Your task to perform on an android device: Open calendar and show me the second week of next month Image 0: 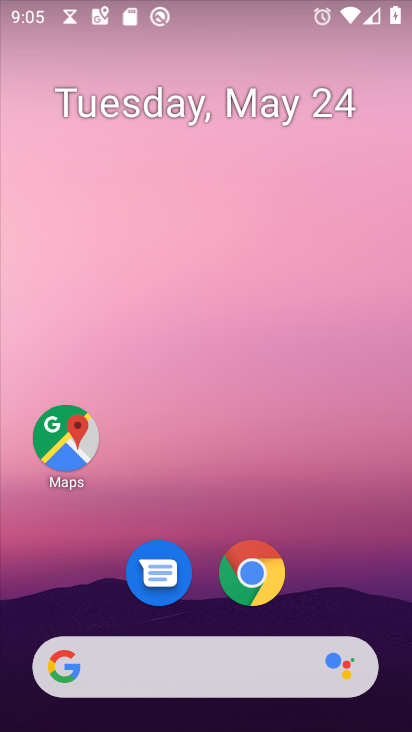
Step 0: drag from (342, 572) to (256, 4)
Your task to perform on an android device: Open calendar and show me the second week of next month Image 1: 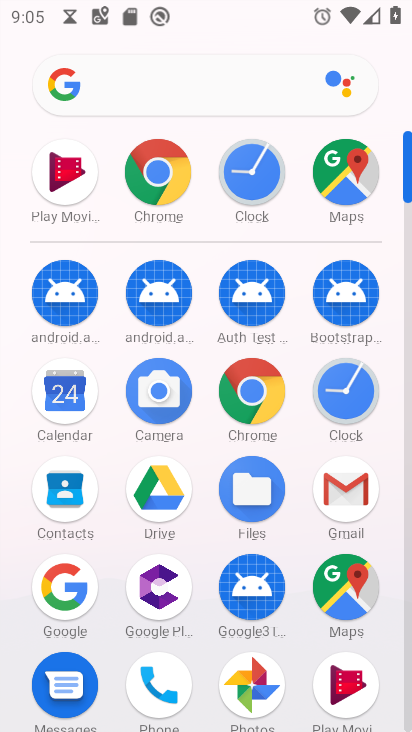
Step 1: click (46, 405)
Your task to perform on an android device: Open calendar and show me the second week of next month Image 2: 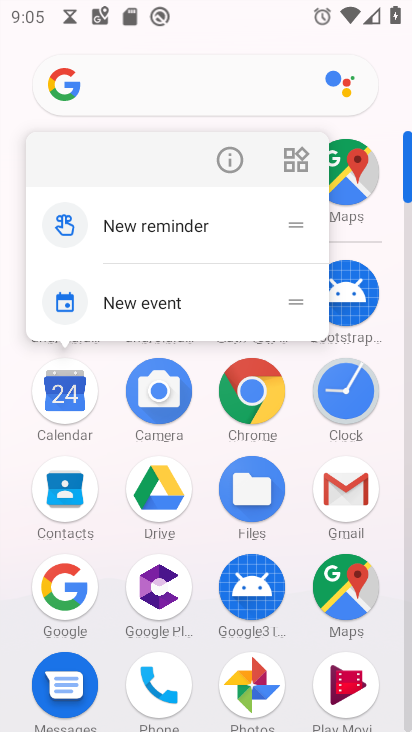
Step 2: click (46, 405)
Your task to perform on an android device: Open calendar and show me the second week of next month Image 3: 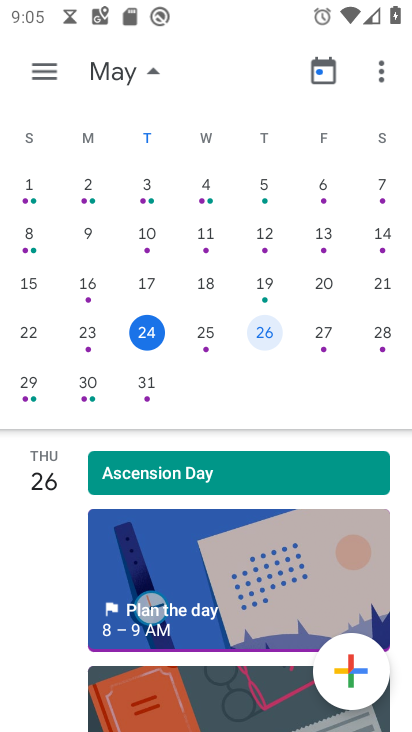
Step 3: drag from (205, 237) to (12, 231)
Your task to perform on an android device: Open calendar and show me the second week of next month Image 4: 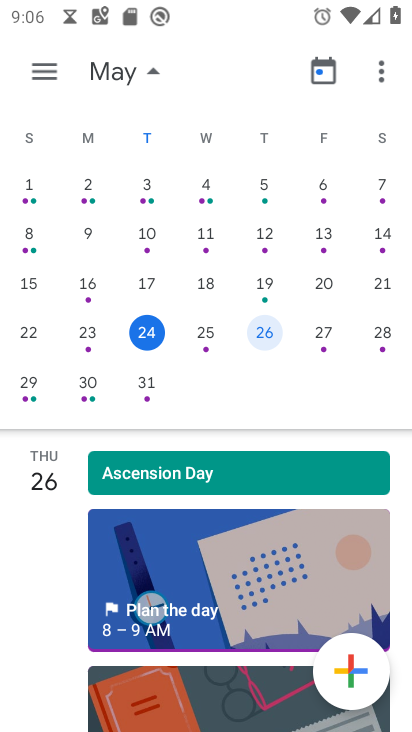
Step 4: click (380, 237)
Your task to perform on an android device: Open calendar and show me the second week of next month Image 5: 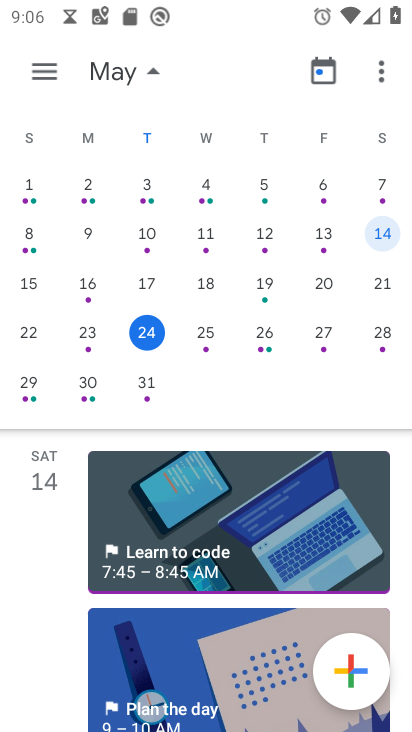
Step 5: task complete